Your task to perform on an android device: turn off smart reply in the gmail app Image 0: 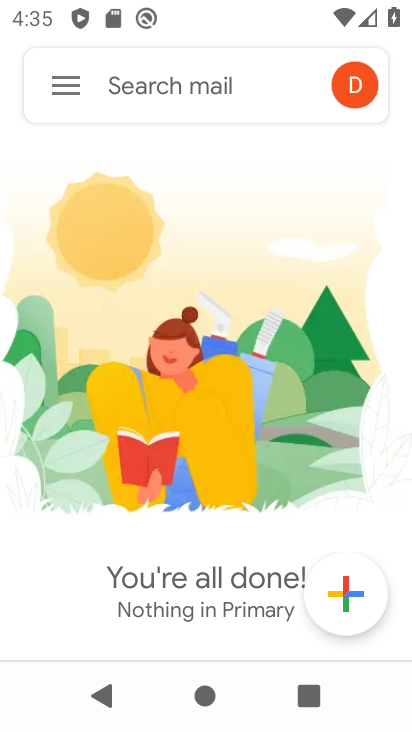
Step 0: click (51, 84)
Your task to perform on an android device: turn off smart reply in the gmail app Image 1: 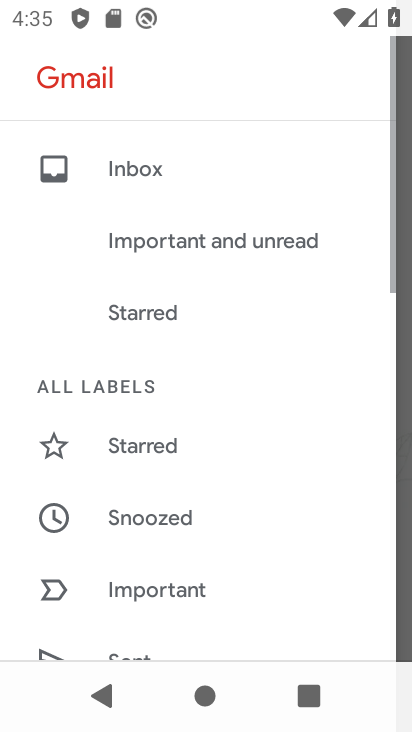
Step 1: drag from (115, 505) to (105, 1)
Your task to perform on an android device: turn off smart reply in the gmail app Image 2: 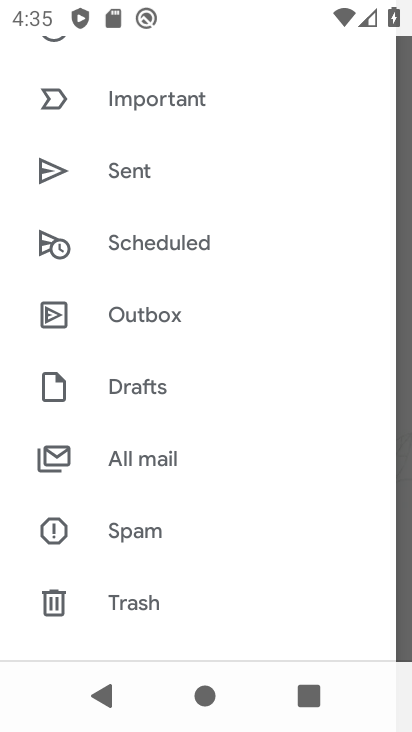
Step 2: drag from (150, 560) to (194, 26)
Your task to perform on an android device: turn off smart reply in the gmail app Image 3: 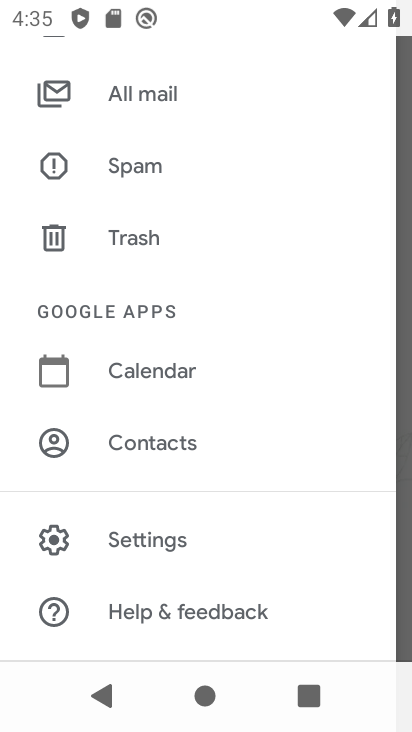
Step 3: click (172, 536)
Your task to perform on an android device: turn off smart reply in the gmail app Image 4: 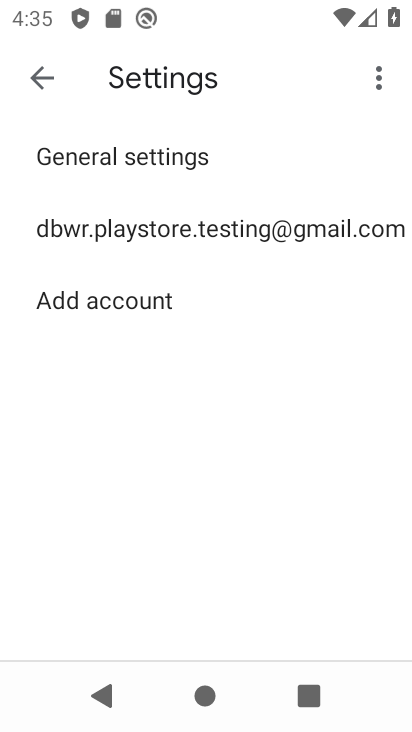
Step 4: click (250, 220)
Your task to perform on an android device: turn off smart reply in the gmail app Image 5: 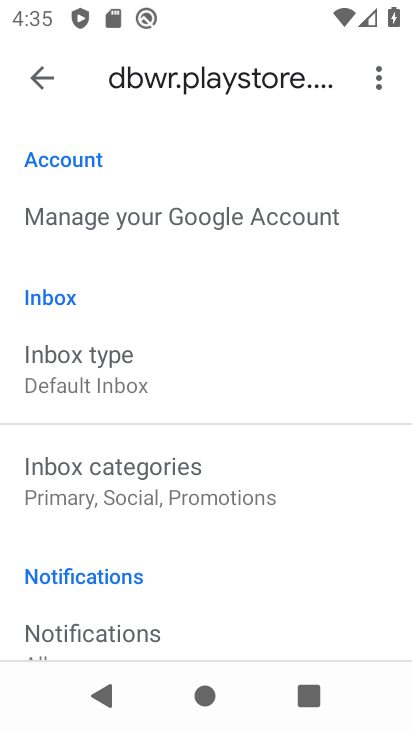
Step 5: click (80, 360)
Your task to perform on an android device: turn off smart reply in the gmail app Image 6: 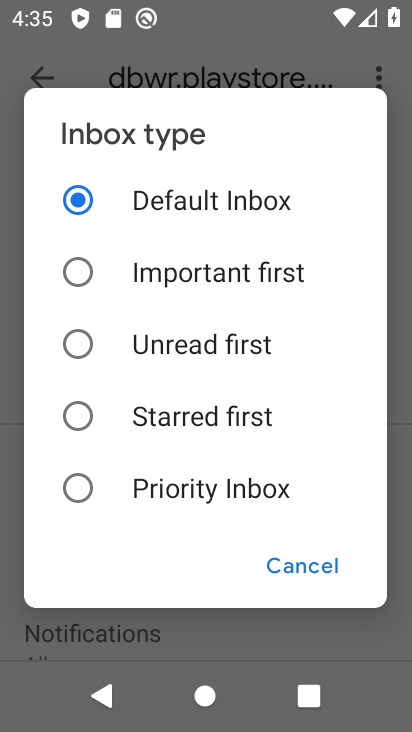
Step 6: click (314, 581)
Your task to perform on an android device: turn off smart reply in the gmail app Image 7: 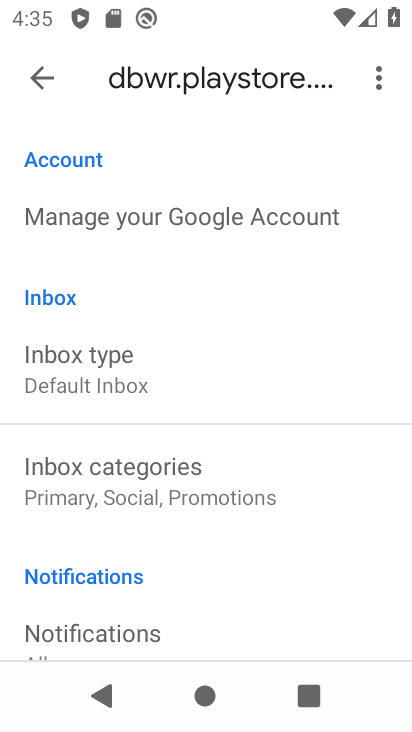
Step 7: drag from (258, 566) to (156, 34)
Your task to perform on an android device: turn off smart reply in the gmail app Image 8: 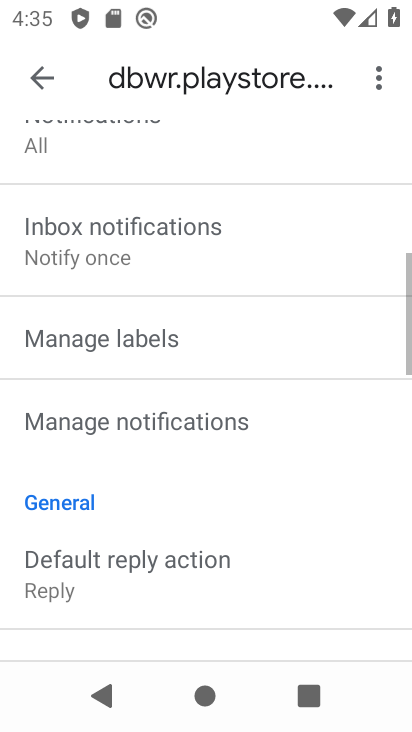
Step 8: drag from (207, 571) to (190, 33)
Your task to perform on an android device: turn off smart reply in the gmail app Image 9: 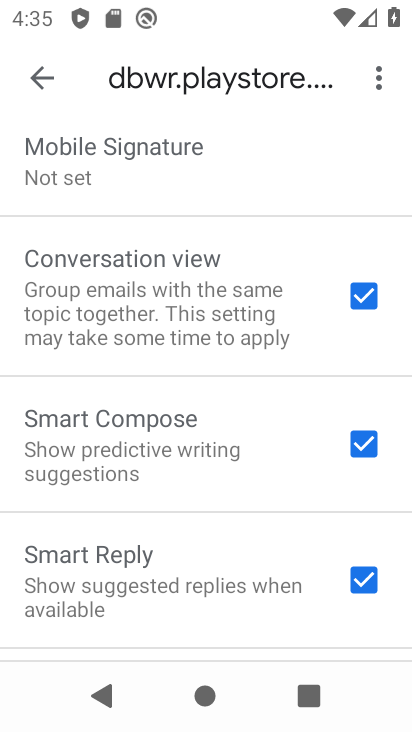
Step 9: click (355, 577)
Your task to perform on an android device: turn off smart reply in the gmail app Image 10: 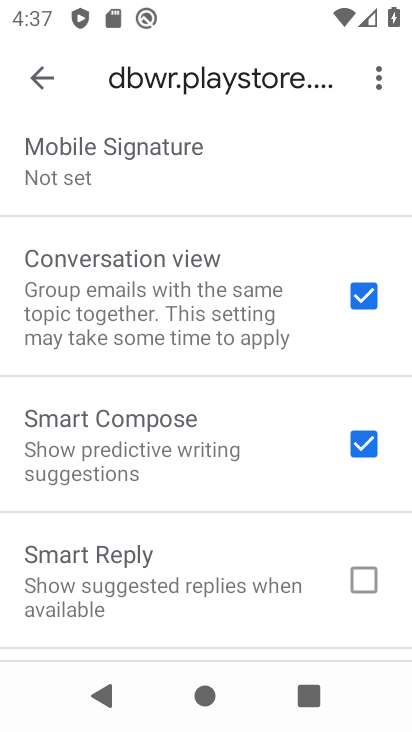
Step 10: task complete